Your task to perform on an android device: change text size in settings app Image 0: 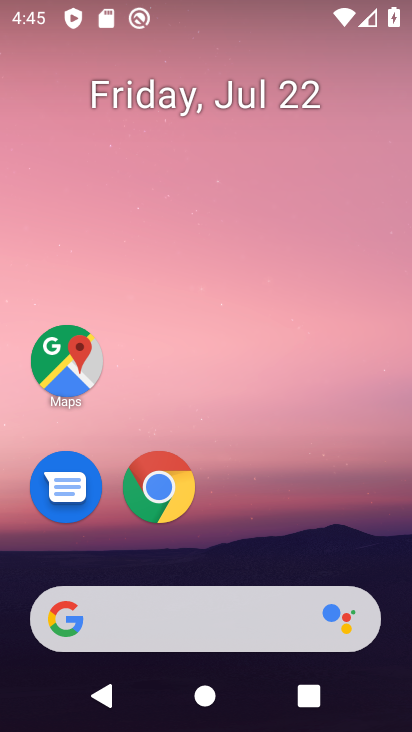
Step 0: drag from (344, 533) to (309, 147)
Your task to perform on an android device: change text size in settings app Image 1: 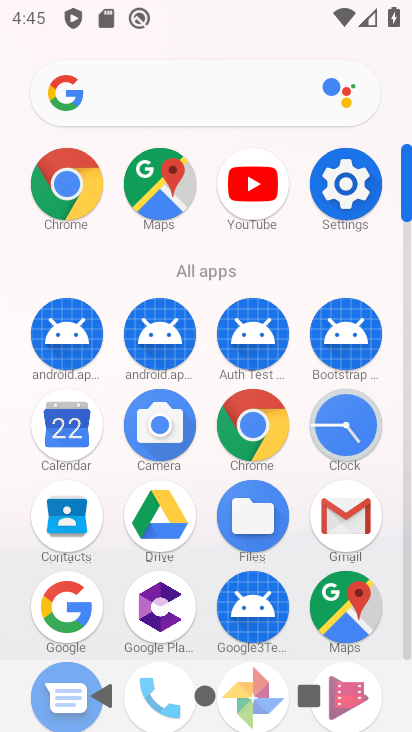
Step 1: click (342, 187)
Your task to perform on an android device: change text size in settings app Image 2: 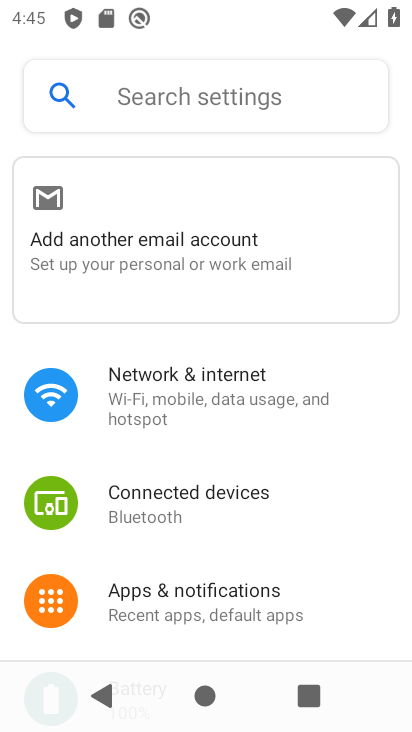
Step 2: drag from (314, 588) to (268, 92)
Your task to perform on an android device: change text size in settings app Image 3: 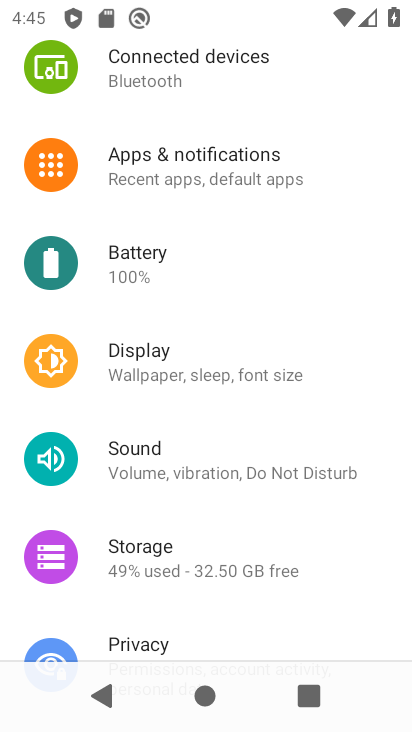
Step 3: click (247, 358)
Your task to perform on an android device: change text size in settings app Image 4: 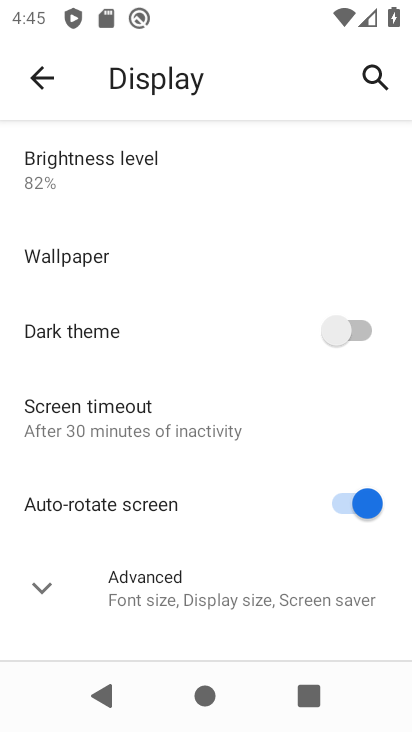
Step 4: click (251, 569)
Your task to perform on an android device: change text size in settings app Image 5: 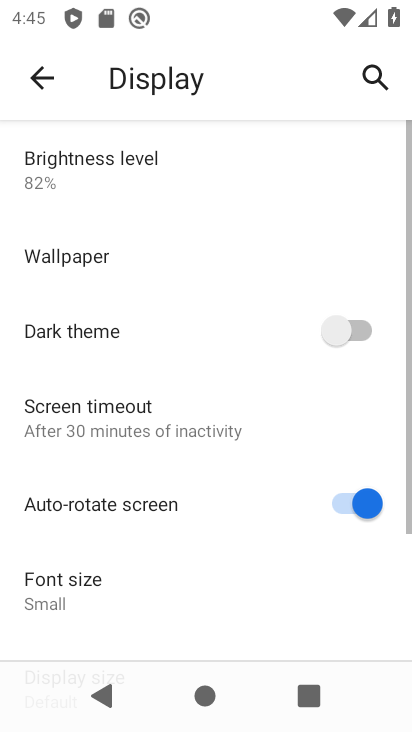
Step 5: drag from (251, 569) to (216, 326)
Your task to perform on an android device: change text size in settings app Image 6: 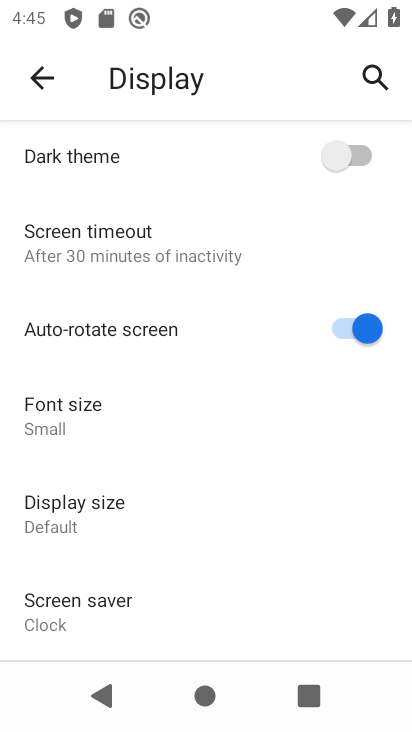
Step 6: click (184, 404)
Your task to perform on an android device: change text size in settings app Image 7: 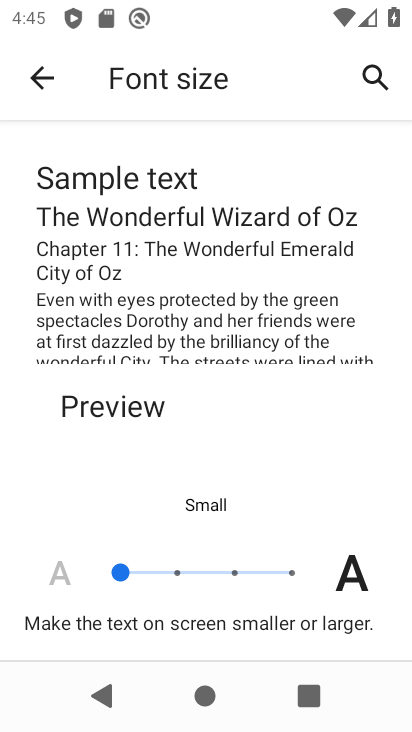
Step 7: click (235, 568)
Your task to perform on an android device: change text size in settings app Image 8: 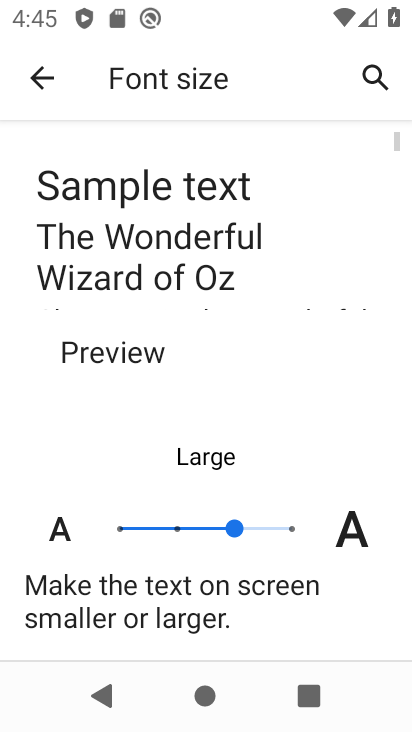
Step 8: task complete